Your task to perform on an android device: Is it going to rain tomorrow? Image 0: 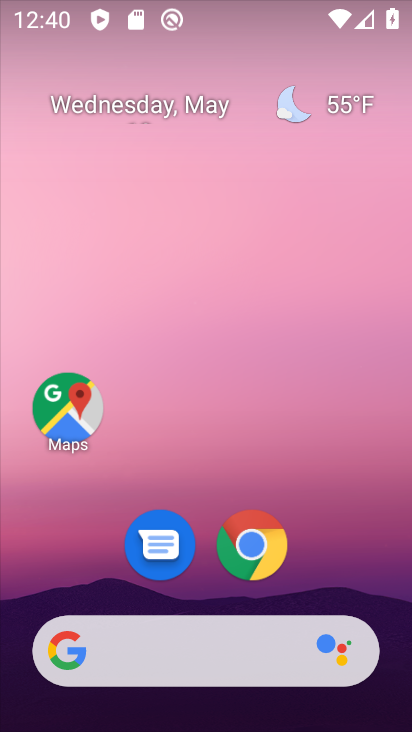
Step 0: click (359, 102)
Your task to perform on an android device: Is it going to rain tomorrow? Image 1: 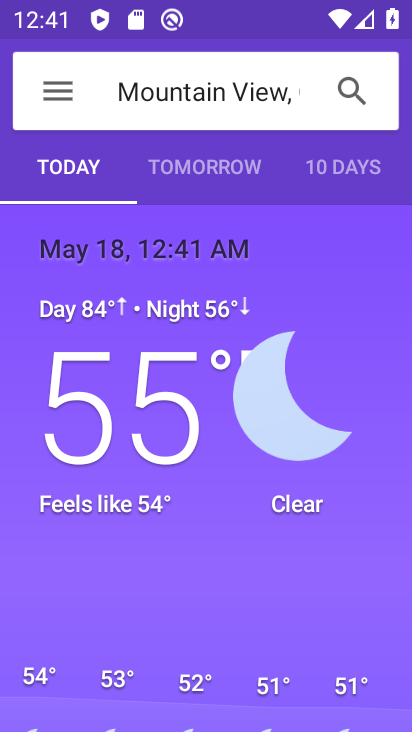
Step 1: click (206, 155)
Your task to perform on an android device: Is it going to rain tomorrow? Image 2: 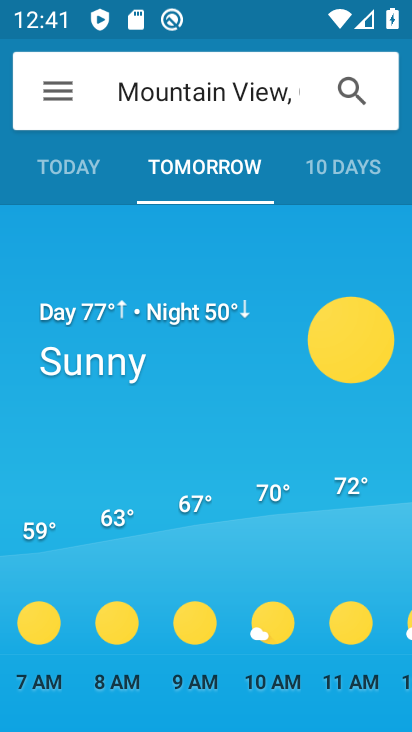
Step 2: task complete